Your task to perform on an android device: Open Youtube and go to the subscriptions tab Image 0: 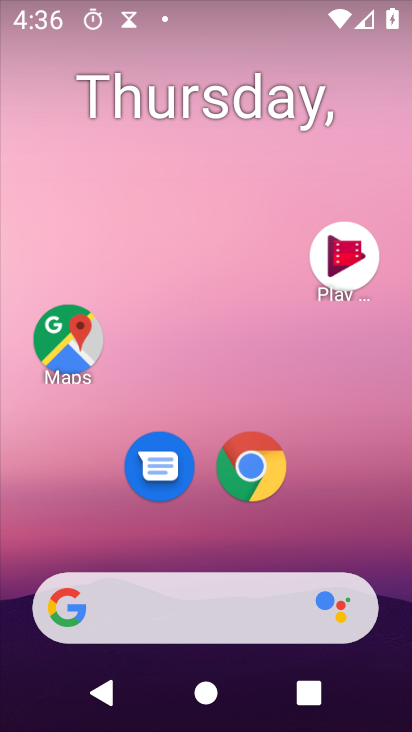
Step 0: drag from (273, 570) to (361, 7)
Your task to perform on an android device: Open Youtube and go to the subscriptions tab Image 1: 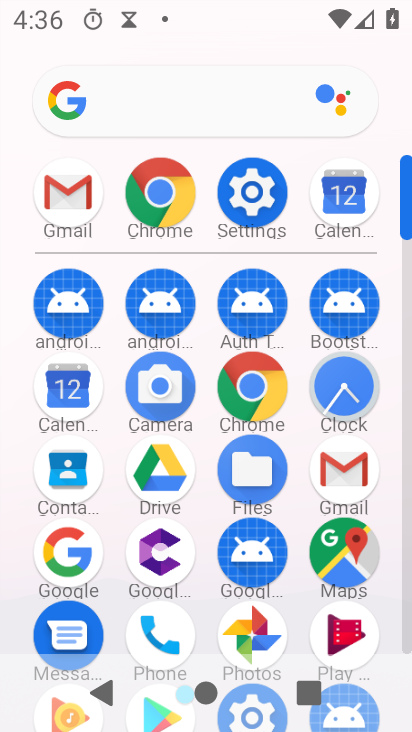
Step 1: drag from (281, 494) to (284, 177)
Your task to perform on an android device: Open Youtube and go to the subscriptions tab Image 2: 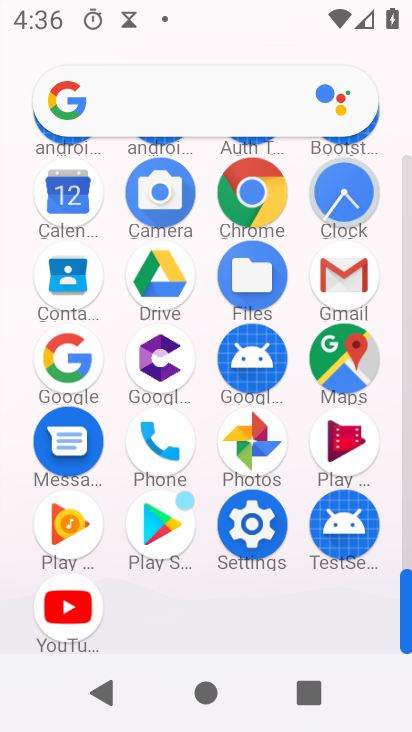
Step 2: click (74, 618)
Your task to perform on an android device: Open Youtube and go to the subscriptions tab Image 3: 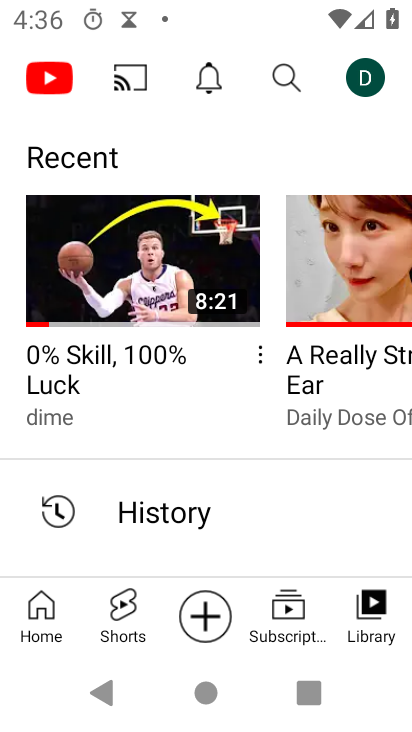
Step 3: click (283, 602)
Your task to perform on an android device: Open Youtube and go to the subscriptions tab Image 4: 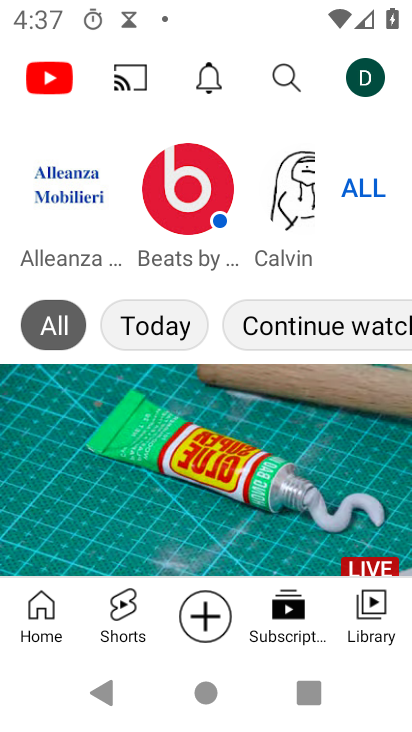
Step 4: task complete